Your task to perform on an android device: Open calendar and show me the fourth week of next month Image 0: 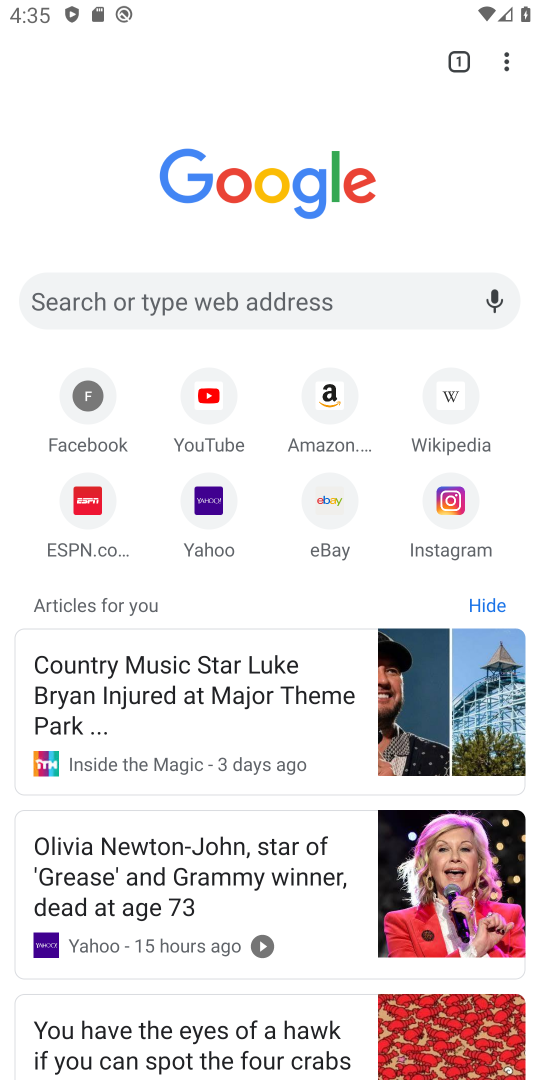
Step 0: press back button
Your task to perform on an android device: Open calendar and show me the fourth week of next month Image 1: 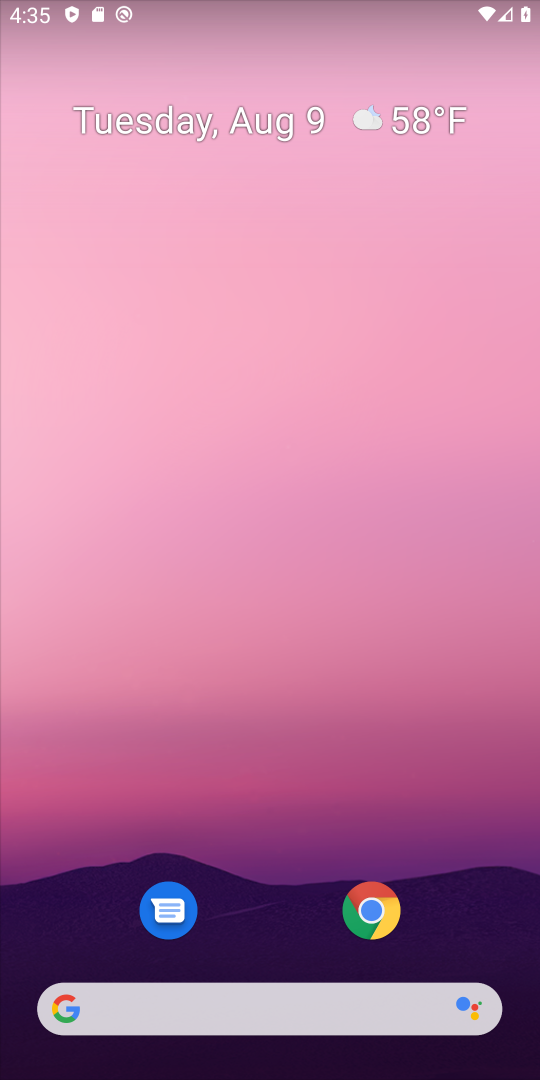
Step 1: drag from (306, 744) to (201, 163)
Your task to perform on an android device: Open calendar and show me the fourth week of next month Image 2: 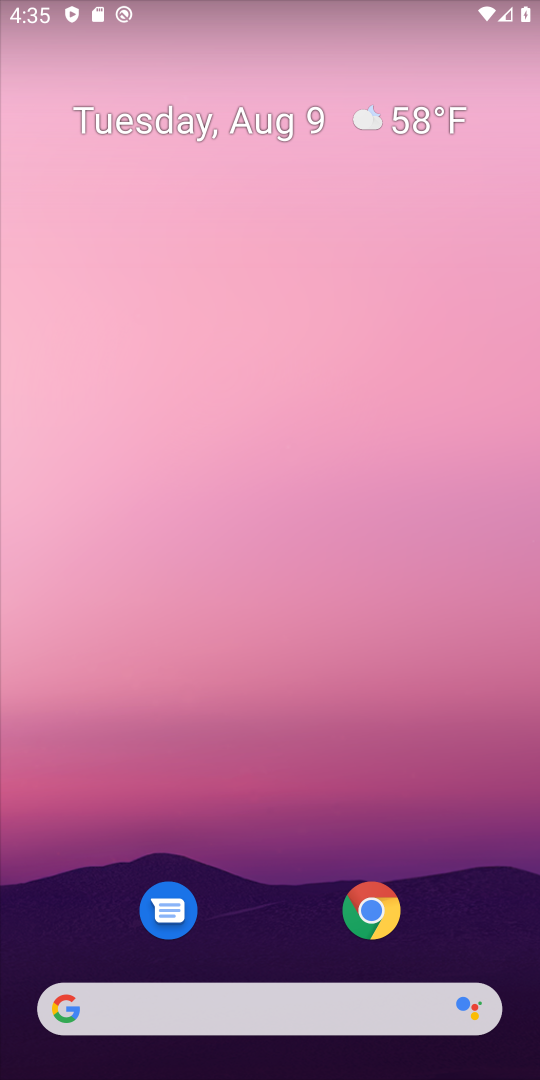
Step 2: drag from (292, 251) to (292, 193)
Your task to perform on an android device: Open calendar and show me the fourth week of next month Image 3: 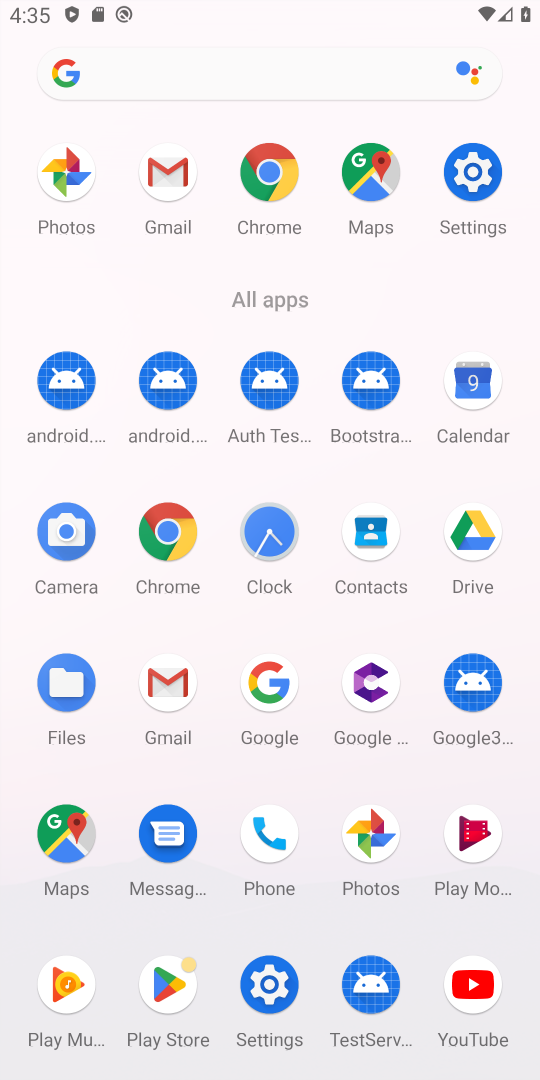
Step 3: click (264, 226)
Your task to perform on an android device: Open calendar and show me the fourth week of next month Image 4: 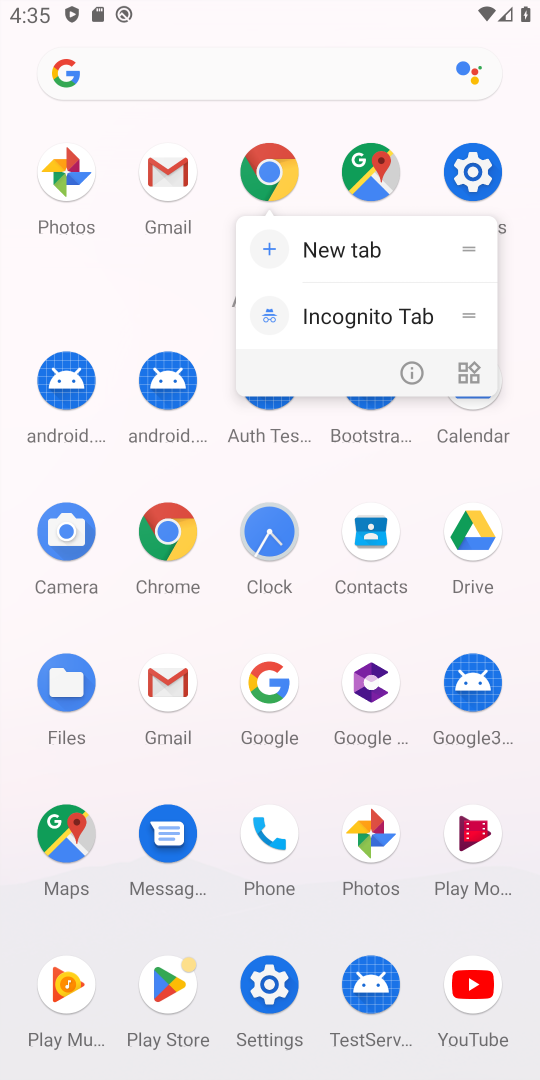
Step 4: click (134, 251)
Your task to perform on an android device: Open calendar and show me the fourth week of next month Image 5: 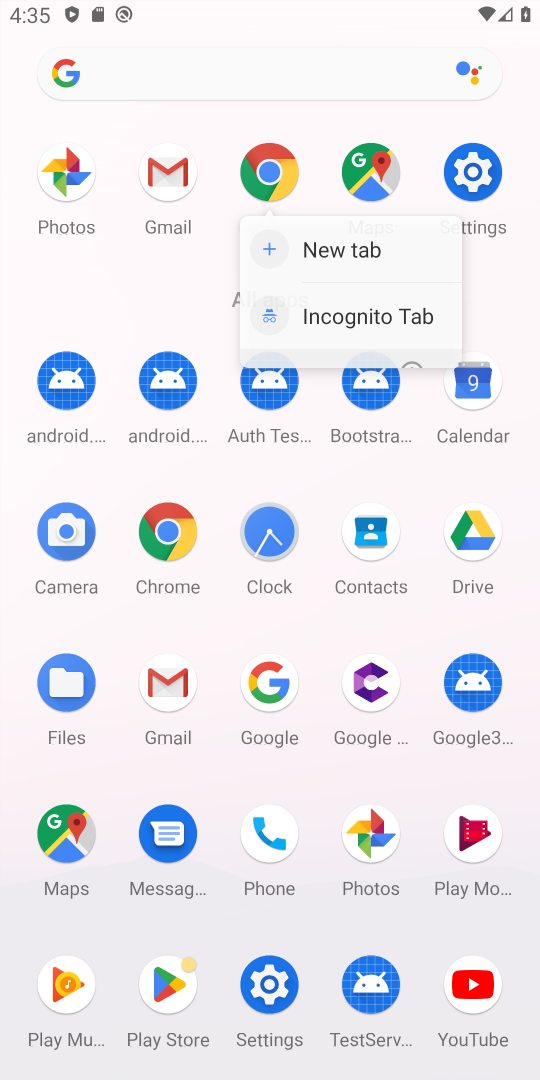
Step 5: click (131, 254)
Your task to perform on an android device: Open calendar and show me the fourth week of next month Image 6: 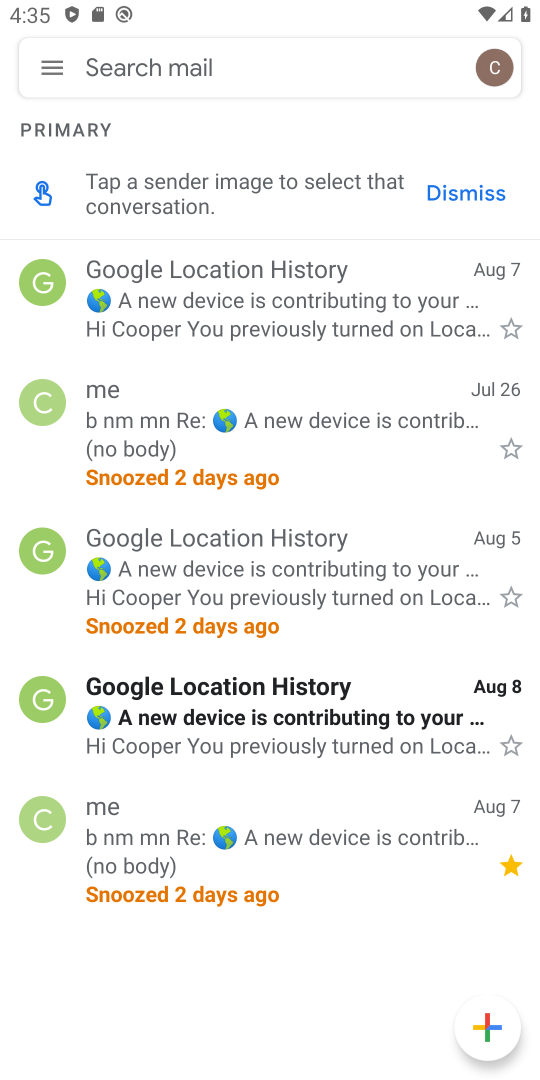
Step 6: click (458, 380)
Your task to perform on an android device: Open calendar and show me the fourth week of next month Image 7: 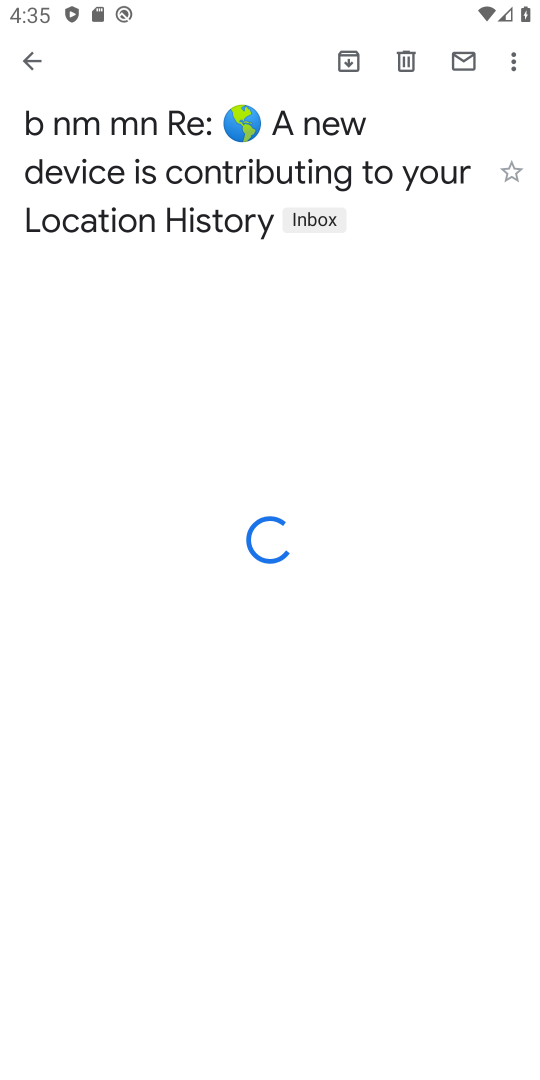
Step 7: press back button
Your task to perform on an android device: Open calendar and show me the fourth week of next month Image 8: 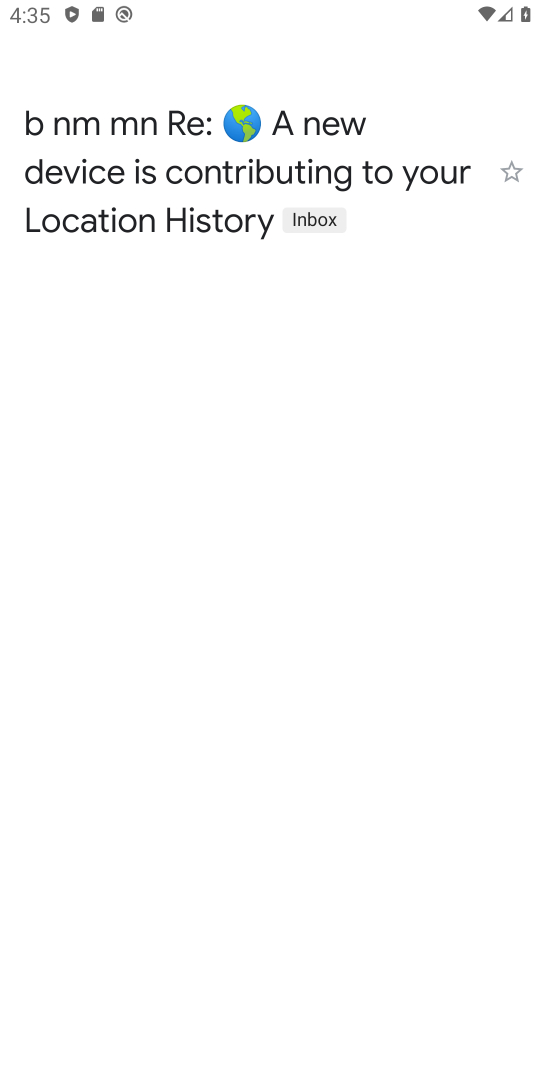
Step 8: press back button
Your task to perform on an android device: Open calendar and show me the fourth week of next month Image 9: 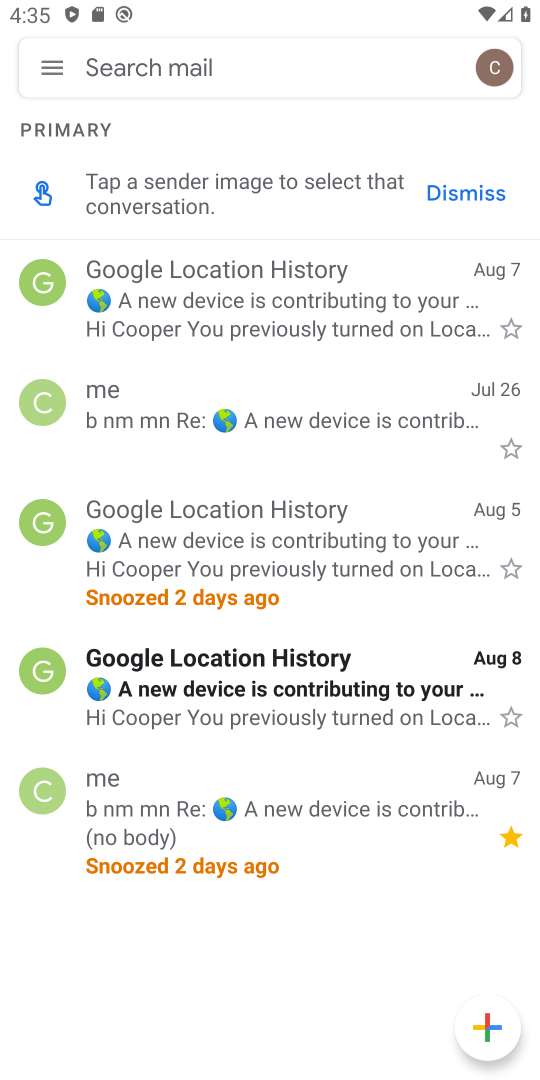
Step 9: click (35, 63)
Your task to perform on an android device: Open calendar and show me the fourth week of next month Image 10: 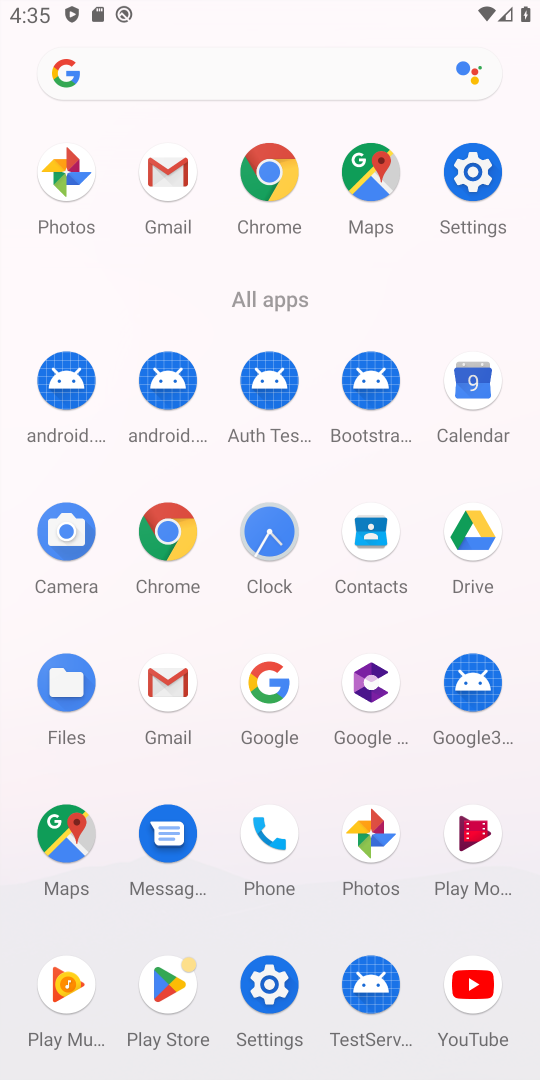
Step 10: click (471, 387)
Your task to perform on an android device: Open calendar and show me the fourth week of next month Image 11: 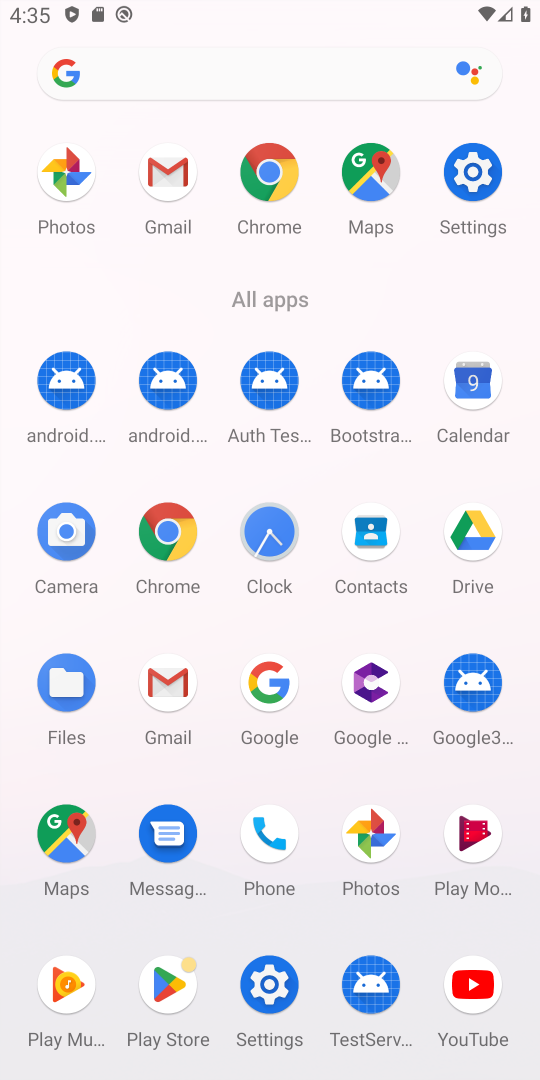
Step 11: click (471, 387)
Your task to perform on an android device: Open calendar and show me the fourth week of next month Image 12: 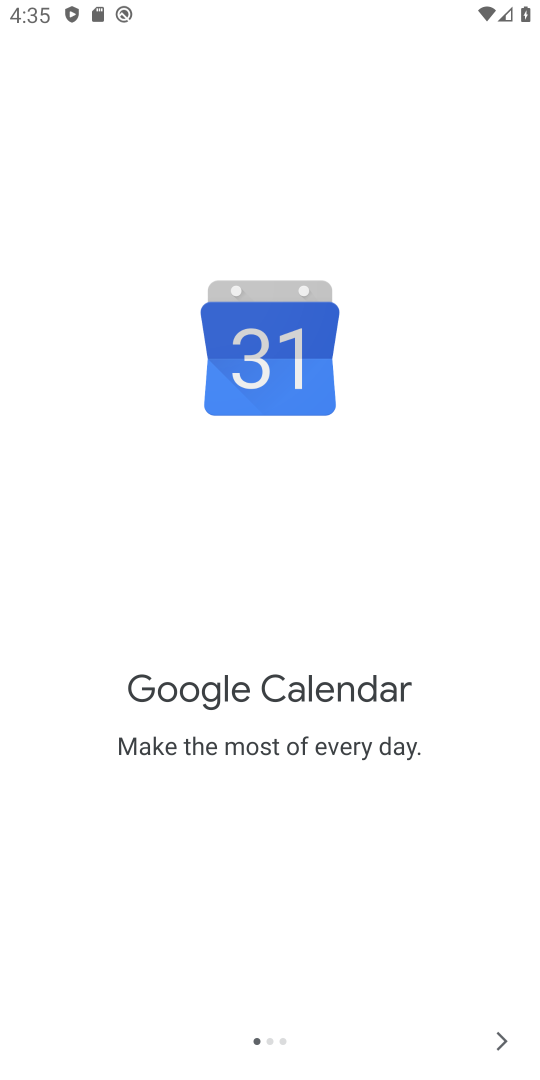
Step 12: click (494, 1032)
Your task to perform on an android device: Open calendar and show me the fourth week of next month Image 13: 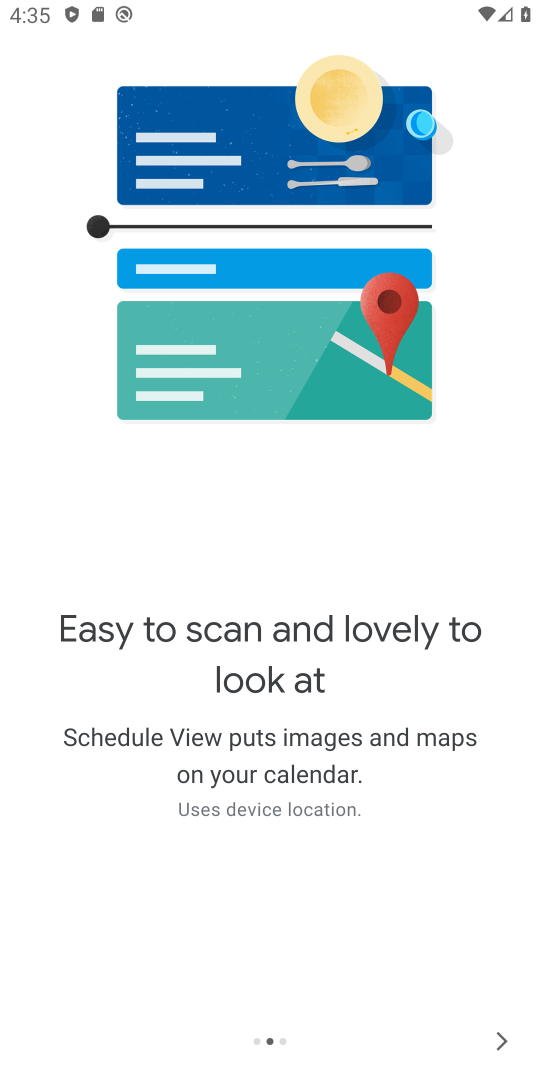
Step 13: click (489, 1044)
Your task to perform on an android device: Open calendar and show me the fourth week of next month Image 14: 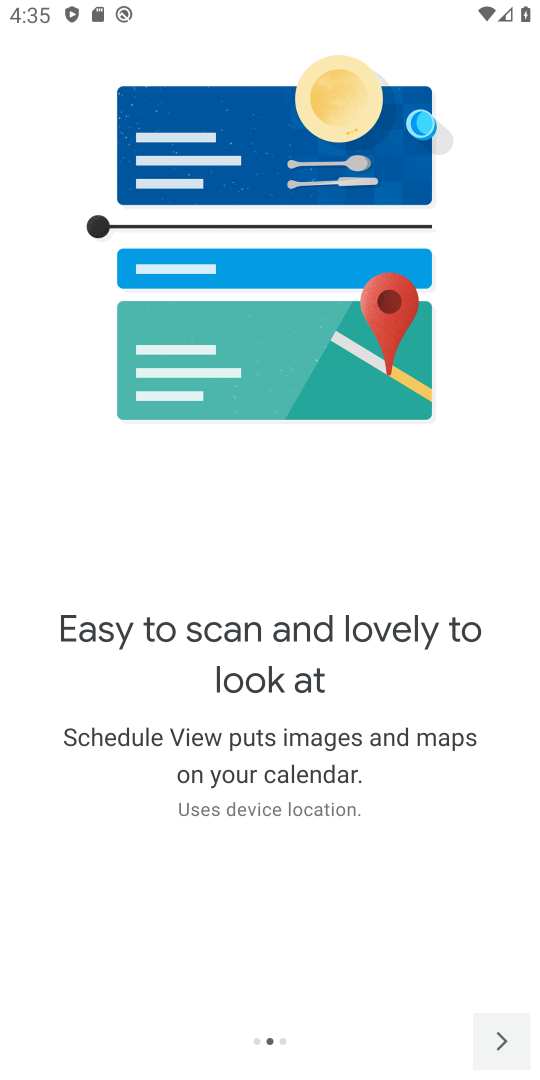
Step 14: click (484, 1024)
Your task to perform on an android device: Open calendar and show me the fourth week of next month Image 15: 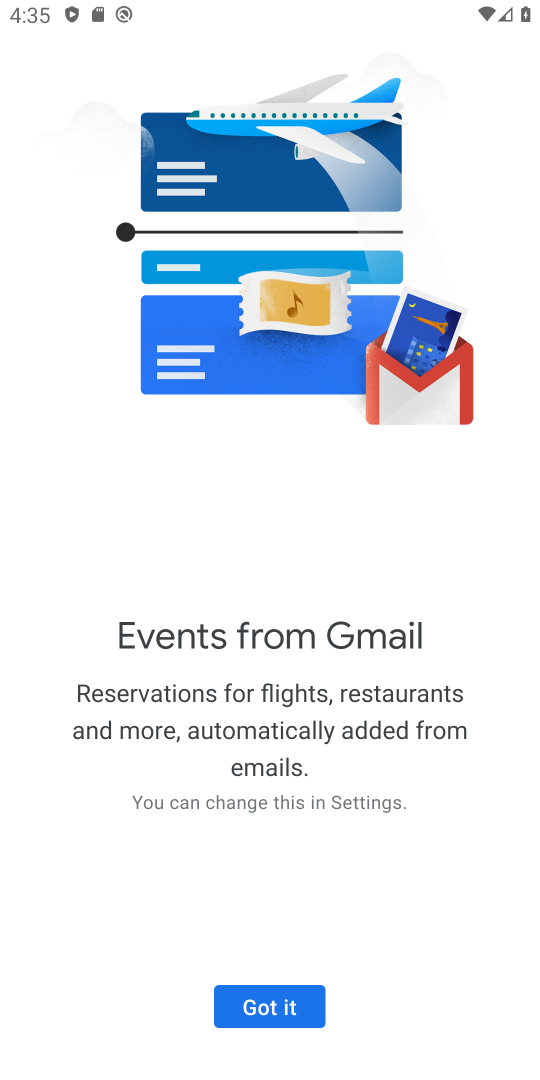
Step 15: drag from (484, 1024) to (218, 1010)
Your task to perform on an android device: Open calendar and show me the fourth week of next month Image 16: 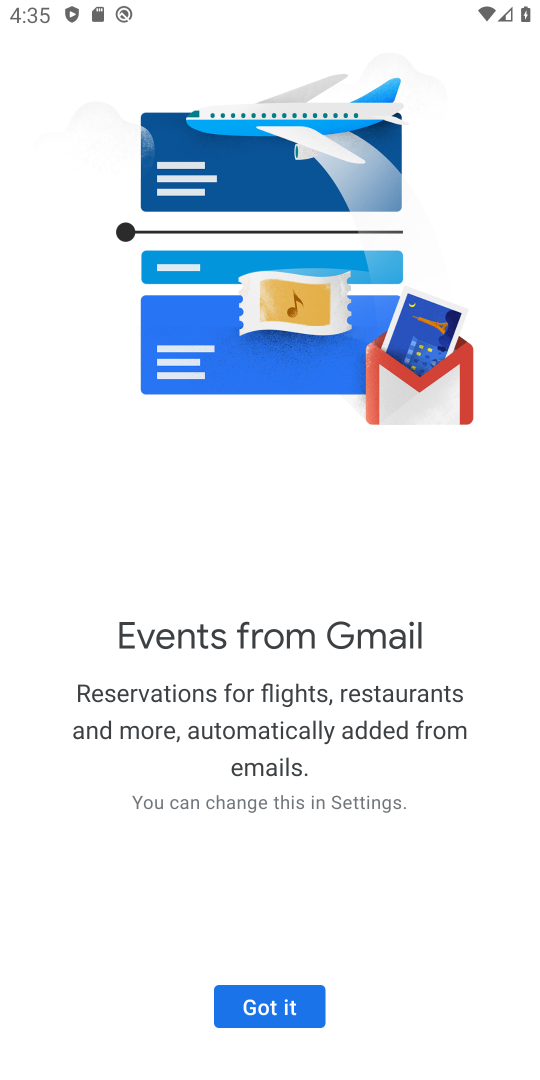
Step 16: click (232, 1010)
Your task to perform on an android device: Open calendar and show me the fourth week of next month Image 17: 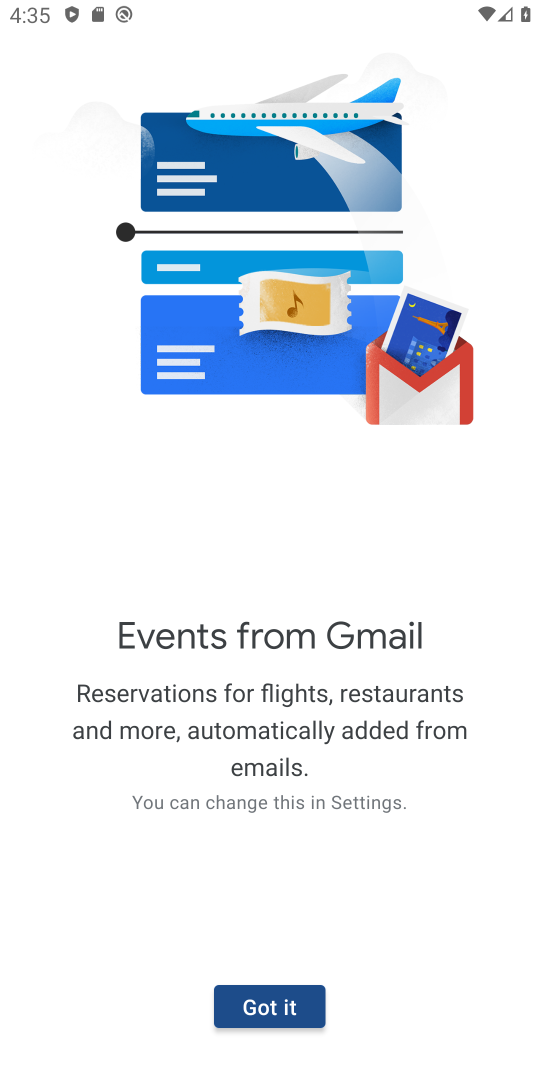
Step 17: click (265, 1008)
Your task to perform on an android device: Open calendar and show me the fourth week of next month Image 18: 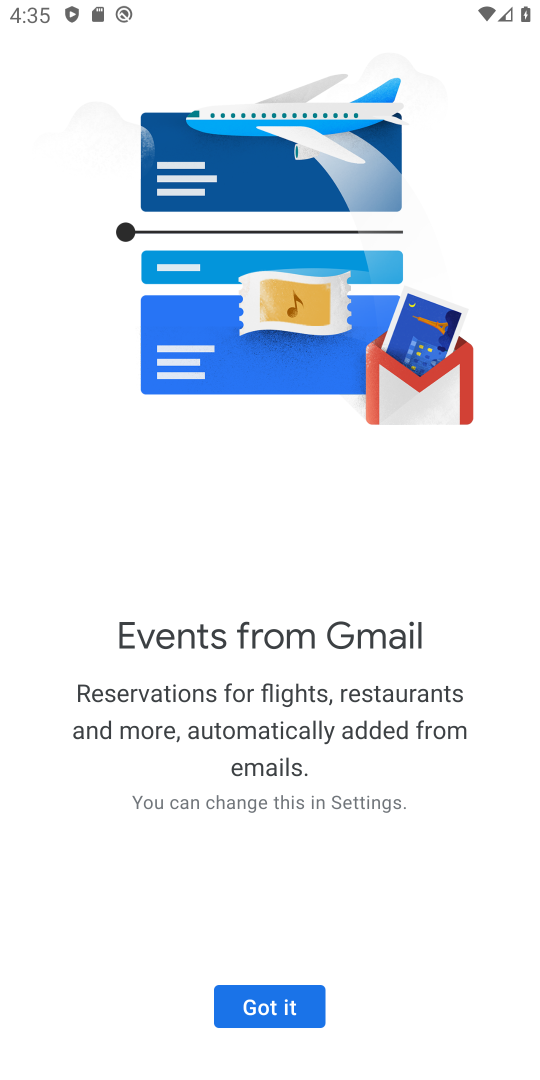
Step 18: click (277, 1020)
Your task to perform on an android device: Open calendar and show me the fourth week of next month Image 19: 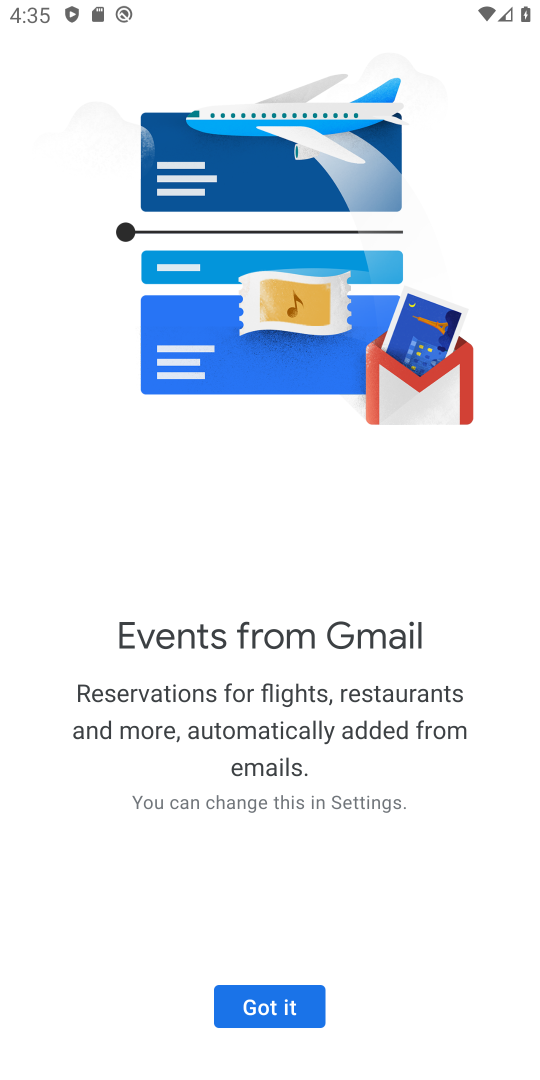
Step 19: click (244, 1021)
Your task to perform on an android device: Open calendar and show me the fourth week of next month Image 20: 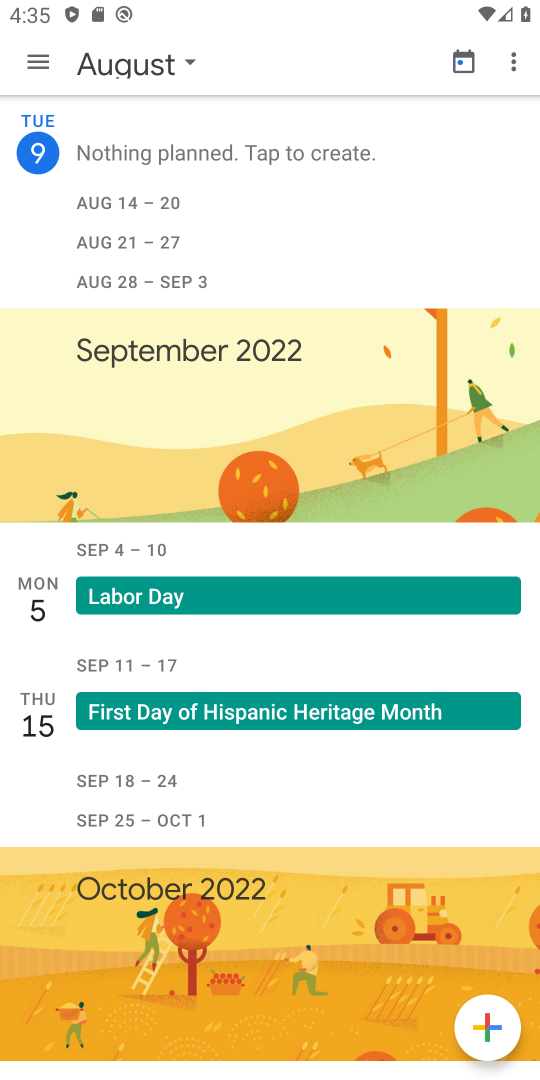
Step 20: drag from (180, 47) to (258, 974)
Your task to perform on an android device: Open calendar and show me the fourth week of next month Image 21: 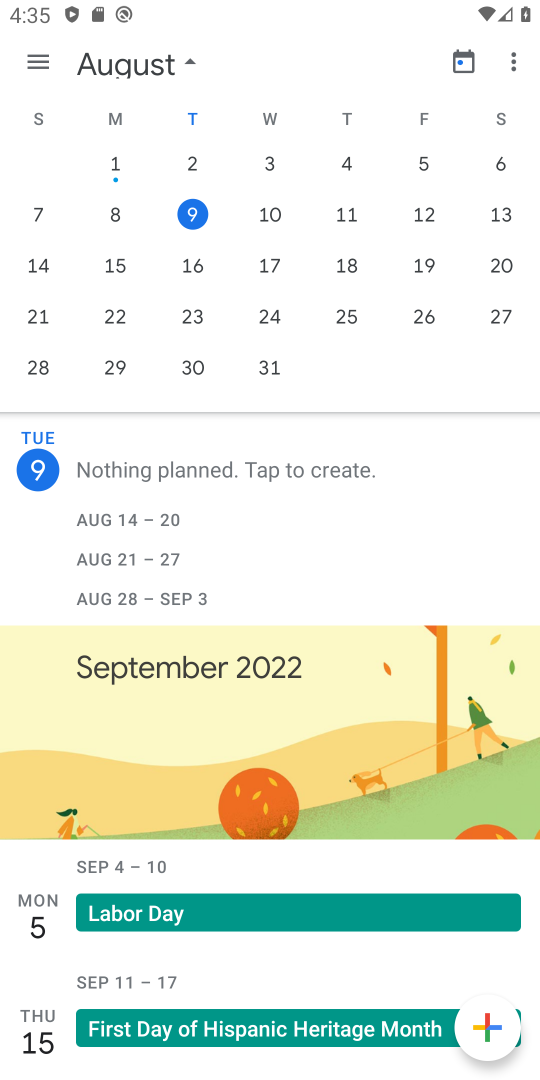
Step 21: click (409, 207)
Your task to perform on an android device: Open calendar and show me the fourth week of next month Image 22: 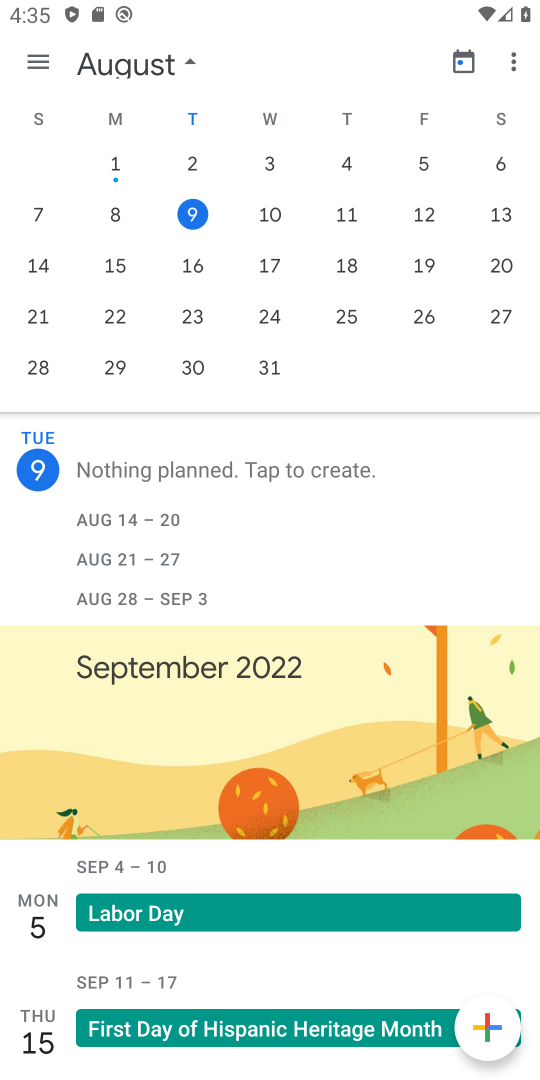
Step 22: click (413, 208)
Your task to perform on an android device: Open calendar and show me the fourth week of next month Image 23: 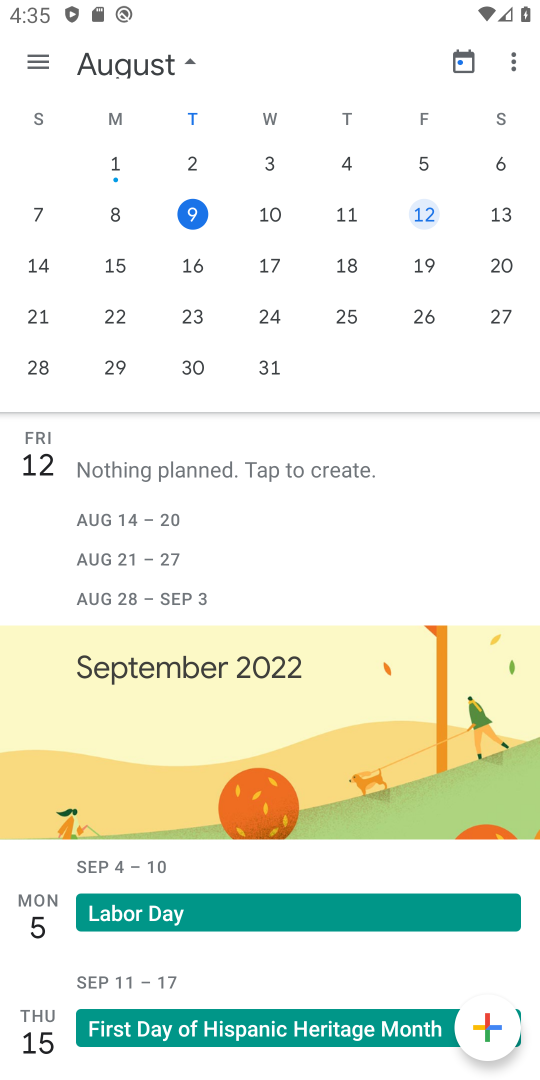
Step 23: drag from (110, 397) to (83, 289)
Your task to perform on an android device: Open calendar and show me the fourth week of next month Image 24: 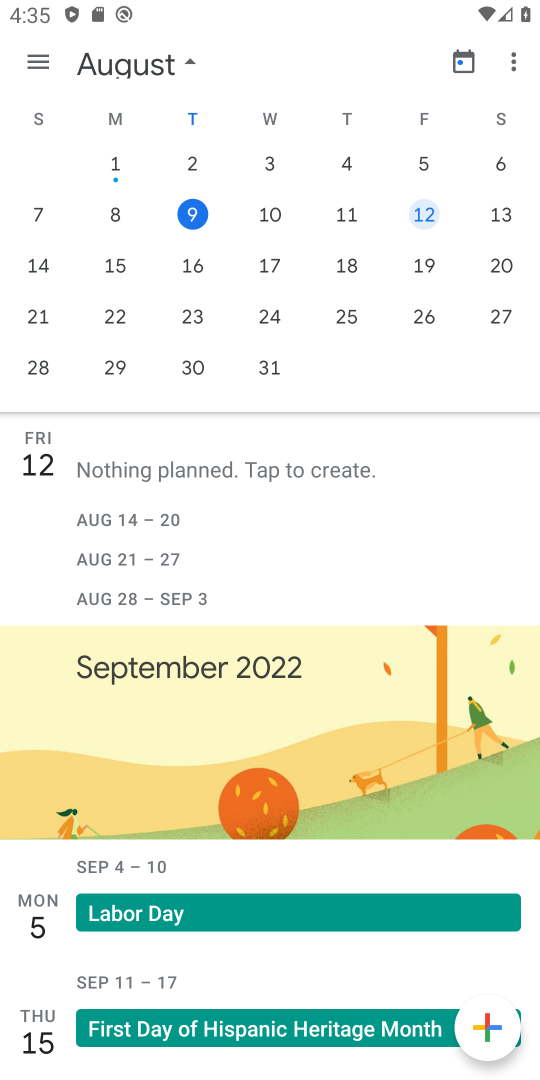
Step 24: drag from (360, 172) to (108, 161)
Your task to perform on an android device: Open calendar and show me the fourth week of next month Image 25: 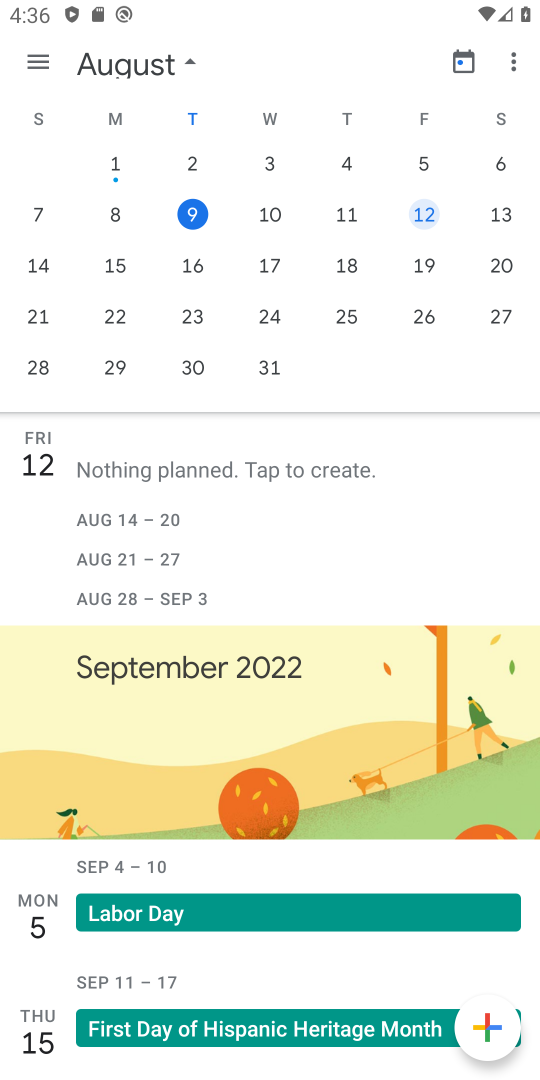
Step 25: drag from (404, 175) to (56, 227)
Your task to perform on an android device: Open calendar and show me the fourth week of next month Image 26: 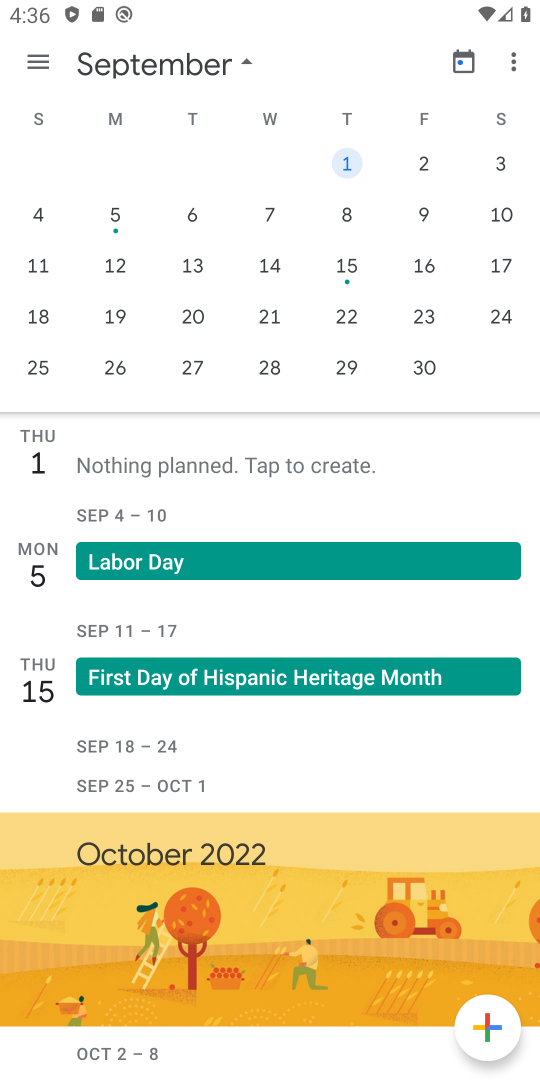
Step 26: click (340, 248)
Your task to perform on an android device: Open calendar and show me the fourth week of next month Image 27: 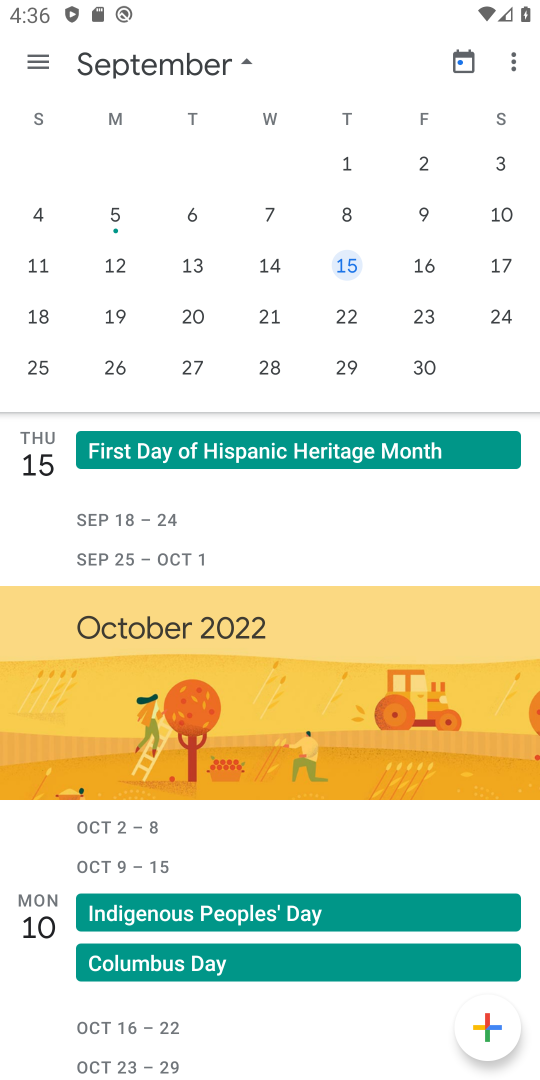
Step 27: task complete